Your task to perform on an android device: refresh tabs in the chrome app Image 0: 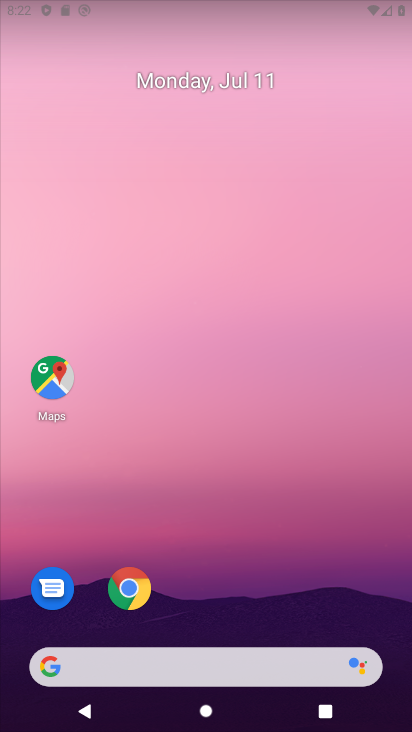
Step 0: click (134, 581)
Your task to perform on an android device: refresh tabs in the chrome app Image 1: 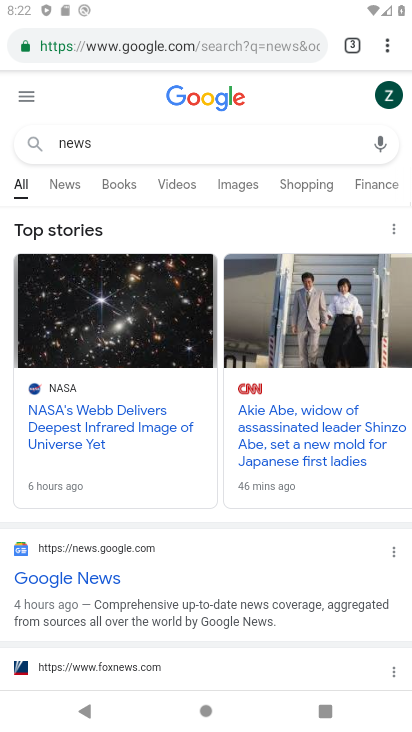
Step 1: click (386, 36)
Your task to perform on an android device: refresh tabs in the chrome app Image 2: 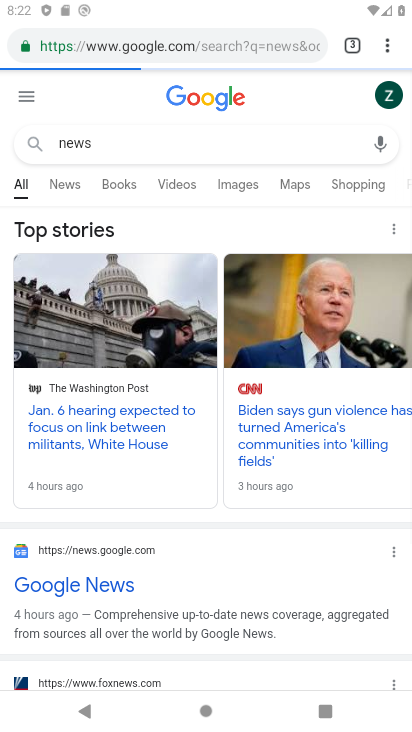
Step 2: click (386, 43)
Your task to perform on an android device: refresh tabs in the chrome app Image 3: 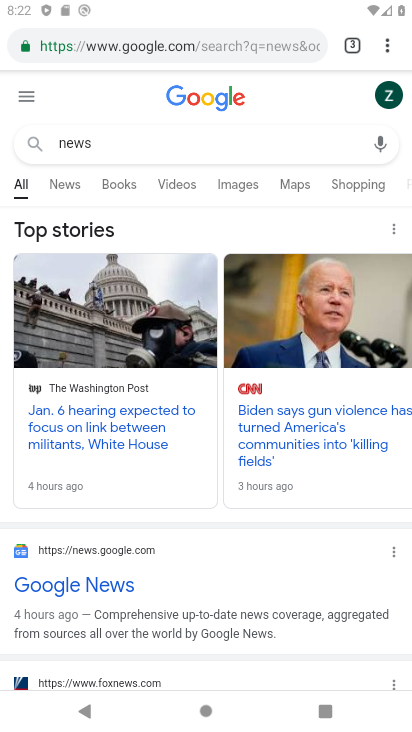
Step 3: click (386, 43)
Your task to perform on an android device: refresh tabs in the chrome app Image 4: 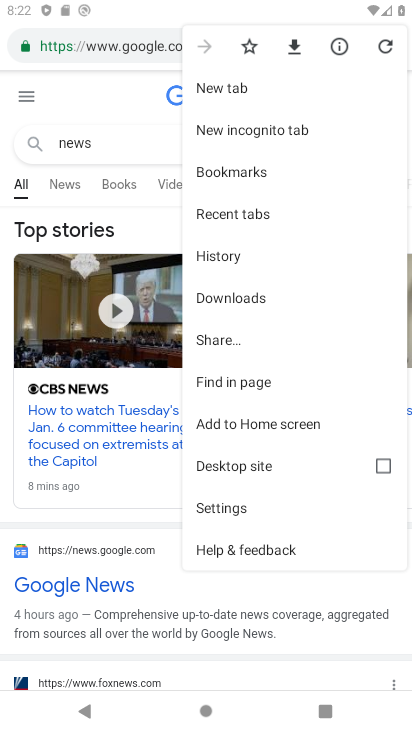
Step 4: click (386, 43)
Your task to perform on an android device: refresh tabs in the chrome app Image 5: 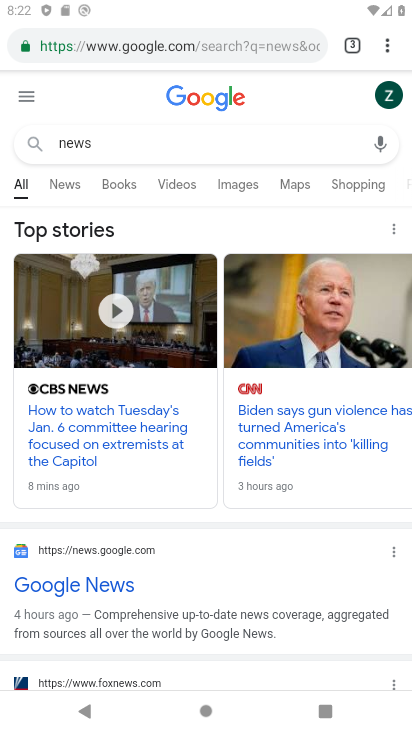
Step 5: task complete